Your task to perform on an android device: When is my next meeting? Image 0: 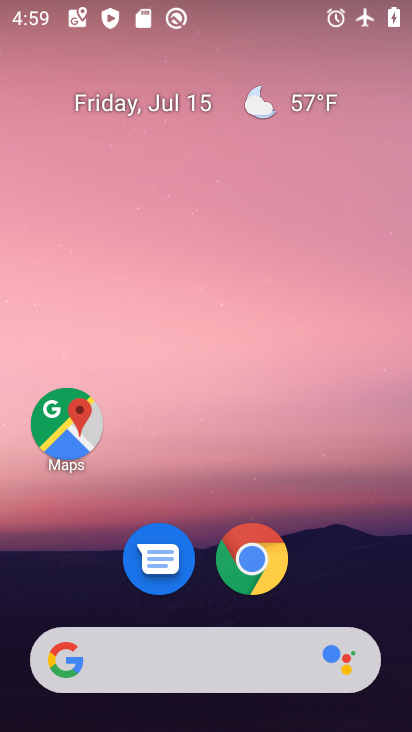
Step 0: drag from (92, 548) to (217, 88)
Your task to perform on an android device: When is my next meeting? Image 1: 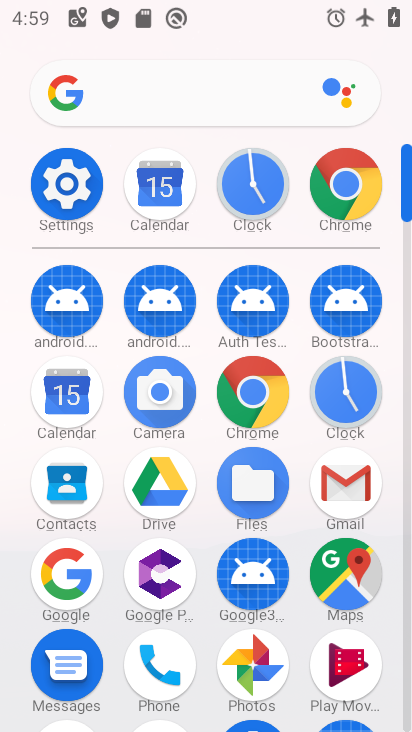
Step 1: click (62, 390)
Your task to perform on an android device: When is my next meeting? Image 2: 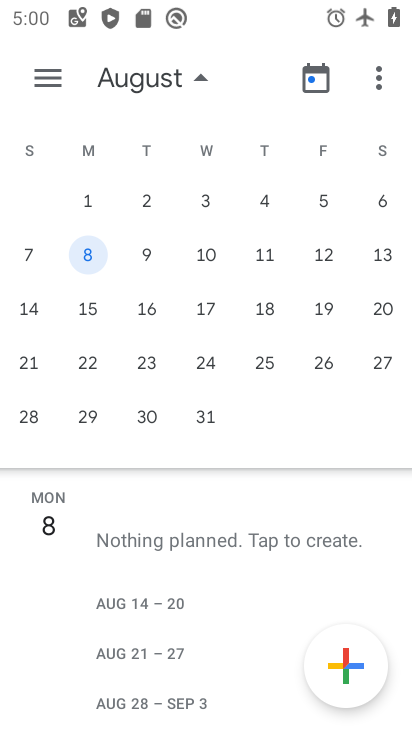
Step 2: task complete